Your task to perform on an android device: toggle sleep mode Image 0: 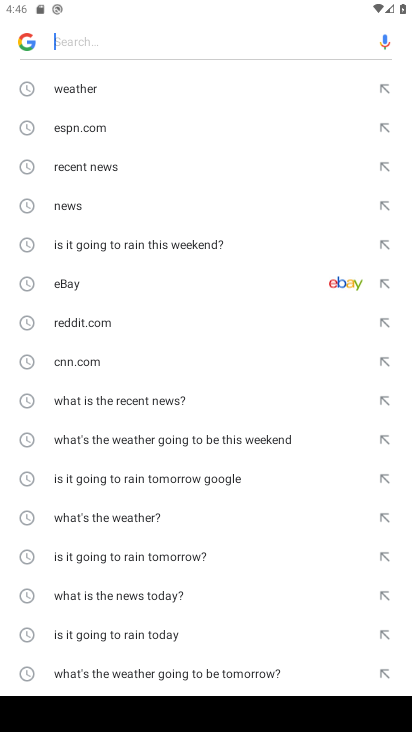
Step 0: press home button
Your task to perform on an android device: toggle sleep mode Image 1: 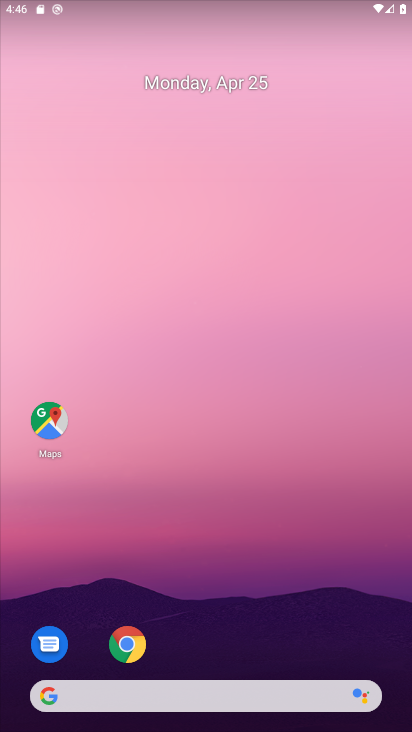
Step 1: drag from (222, 568) to (193, 87)
Your task to perform on an android device: toggle sleep mode Image 2: 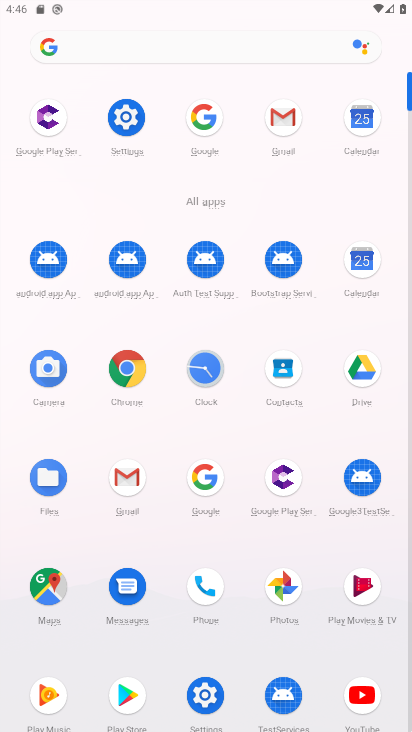
Step 2: click (129, 122)
Your task to perform on an android device: toggle sleep mode Image 3: 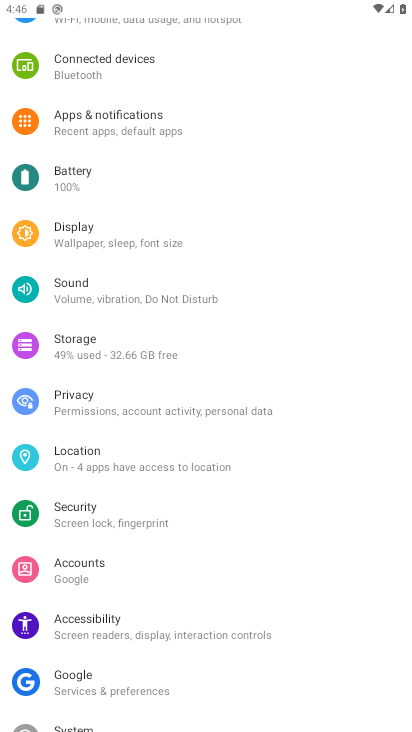
Step 3: click (123, 228)
Your task to perform on an android device: toggle sleep mode Image 4: 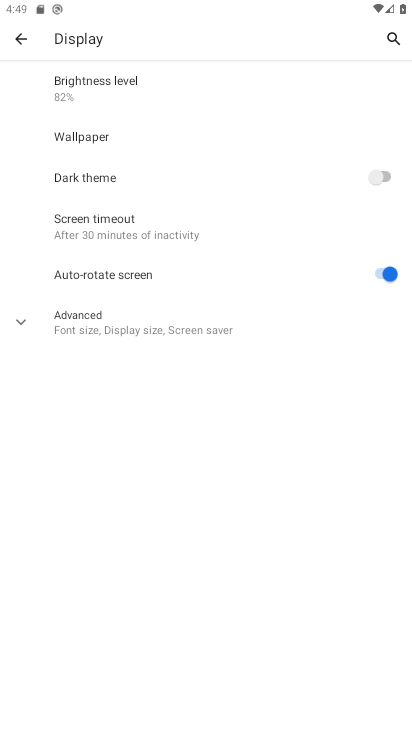
Step 4: task complete